Your task to perform on an android device: Go to accessibility settings Image 0: 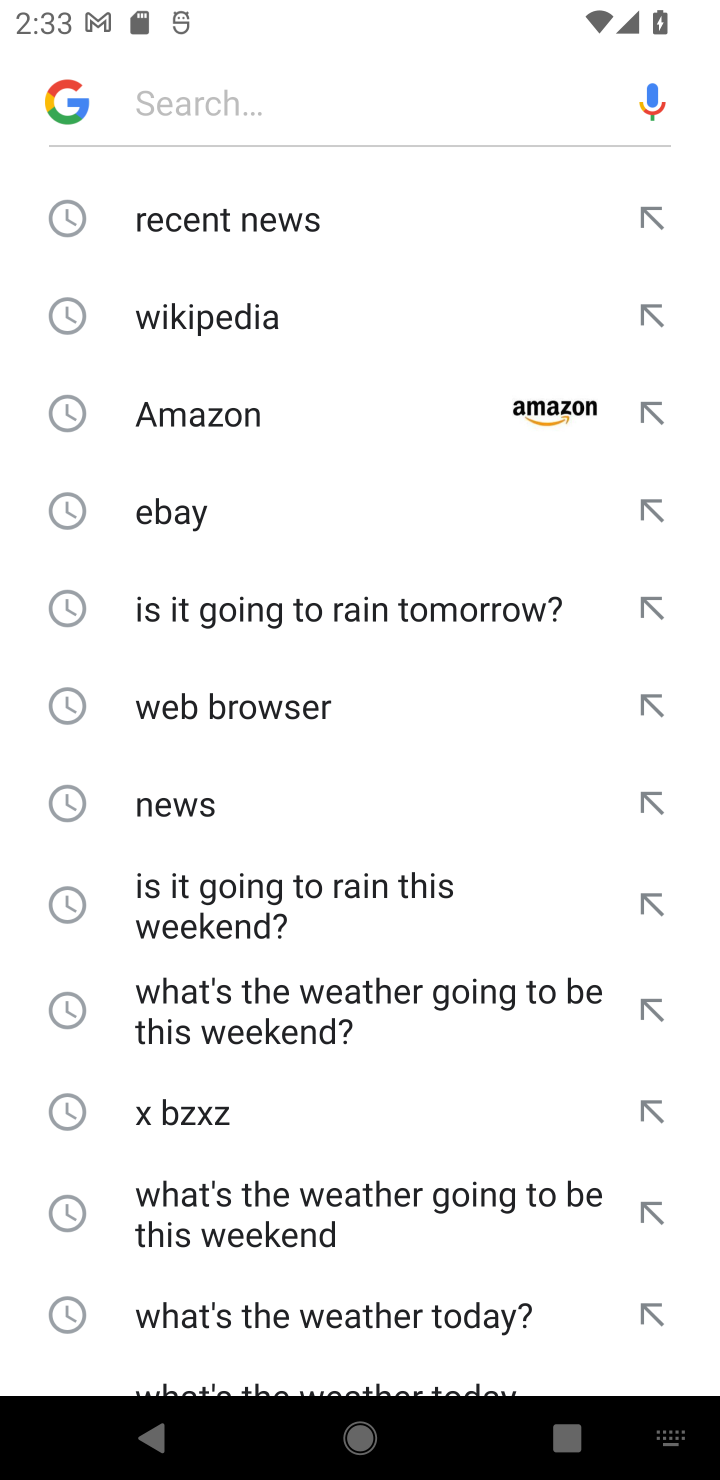
Step 0: press home button
Your task to perform on an android device: Go to accessibility settings Image 1: 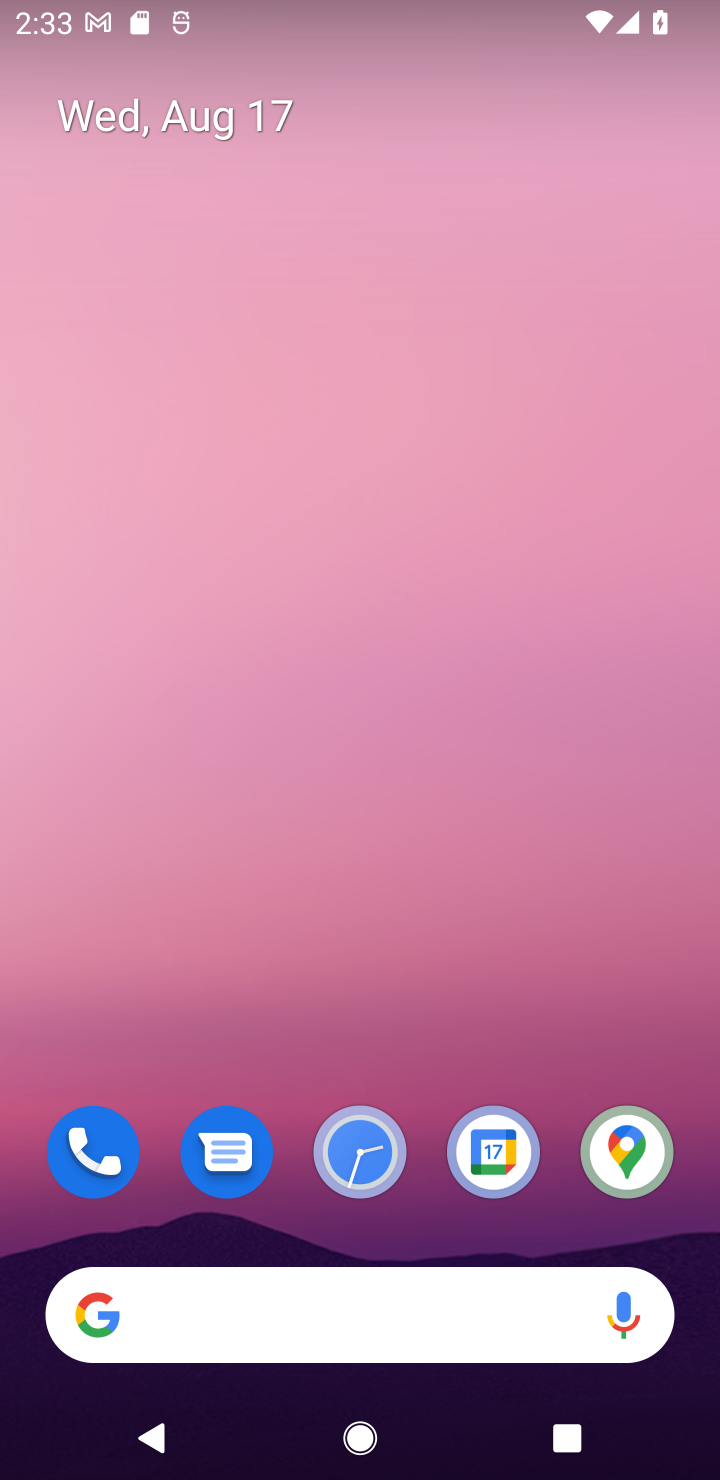
Step 1: drag from (580, 1230) to (309, 90)
Your task to perform on an android device: Go to accessibility settings Image 2: 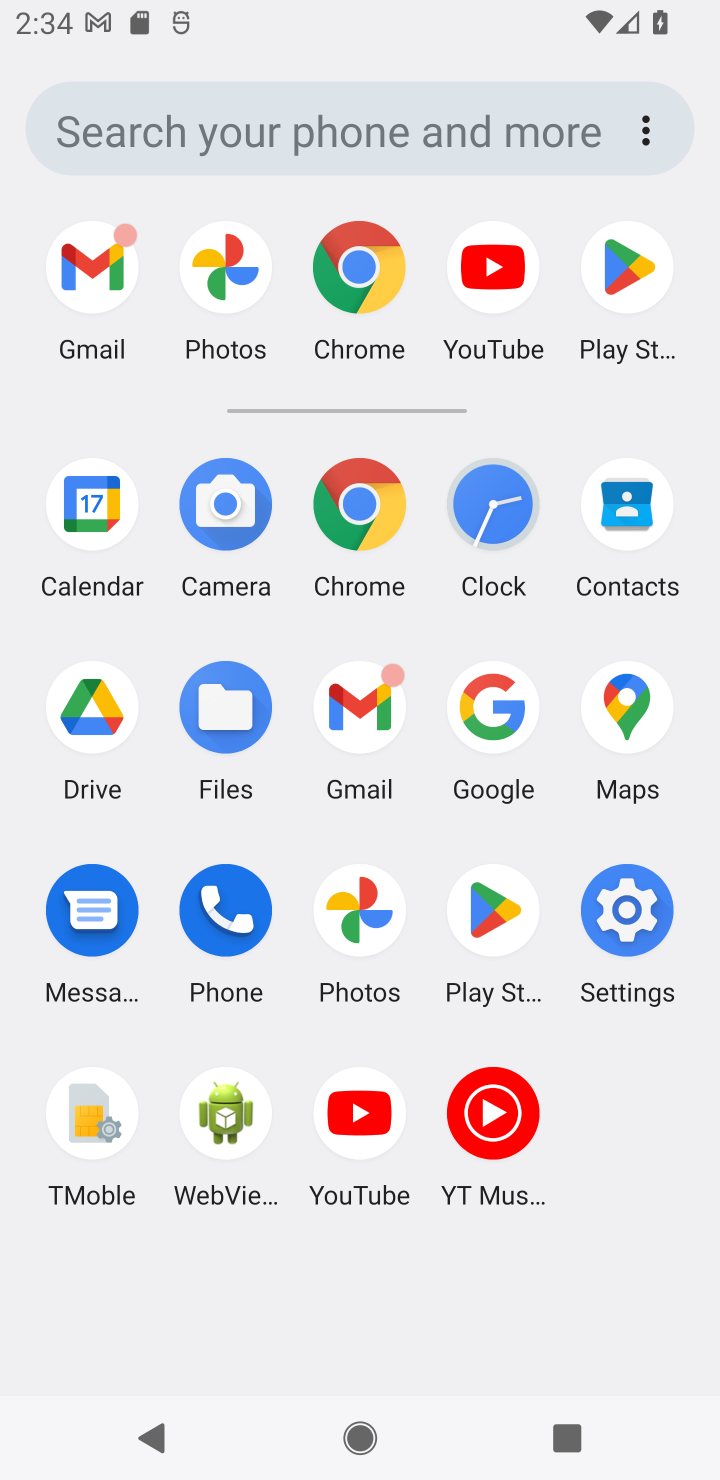
Step 2: click (639, 908)
Your task to perform on an android device: Go to accessibility settings Image 3: 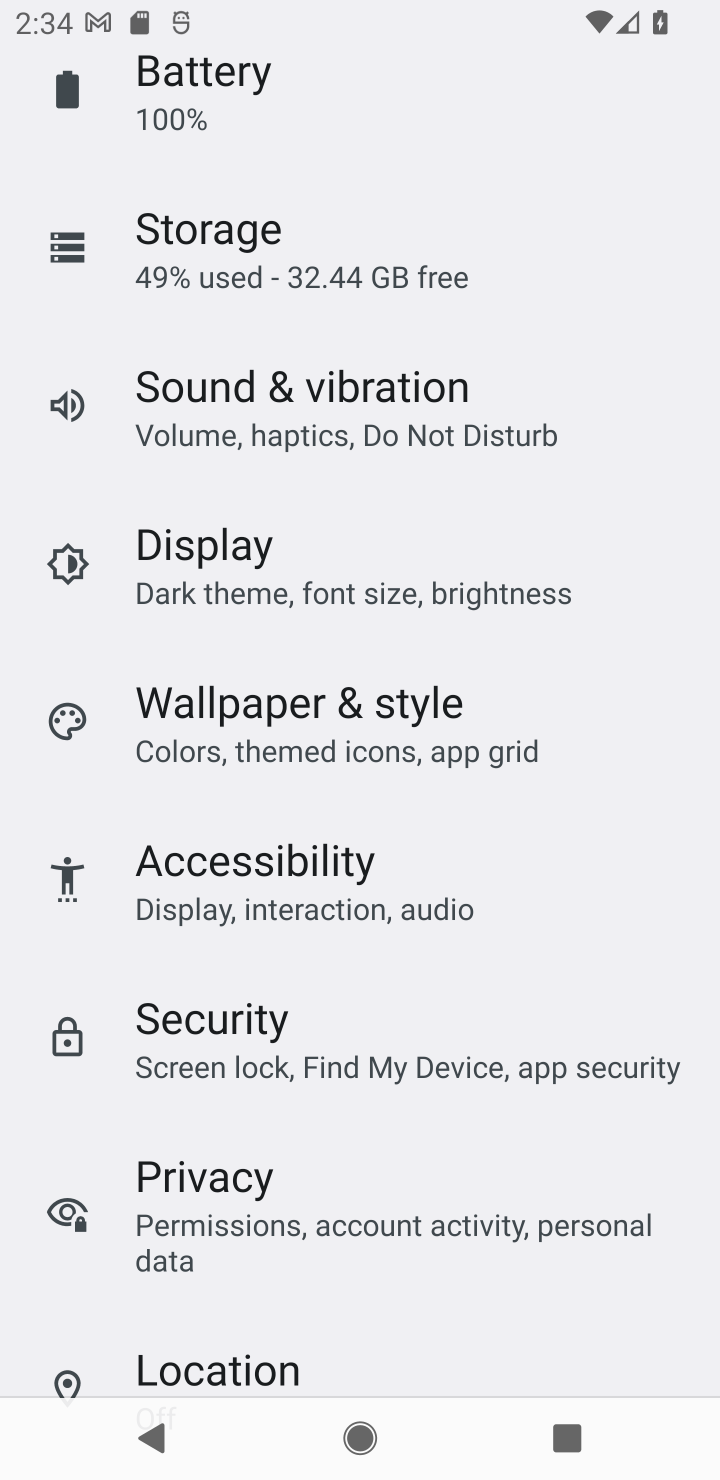
Step 3: click (291, 884)
Your task to perform on an android device: Go to accessibility settings Image 4: 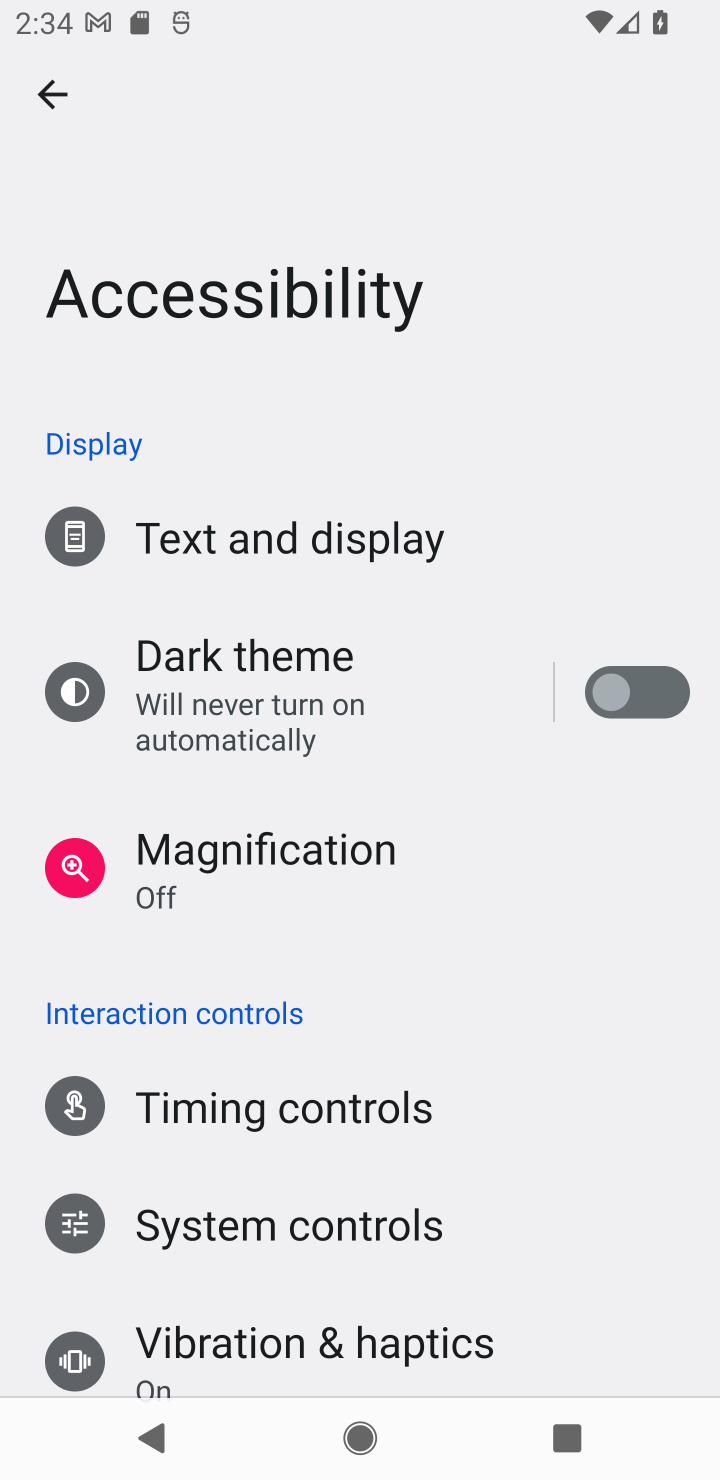
Step 4: task complete